Your task to perform on an android device: What is the news today? Image 0: 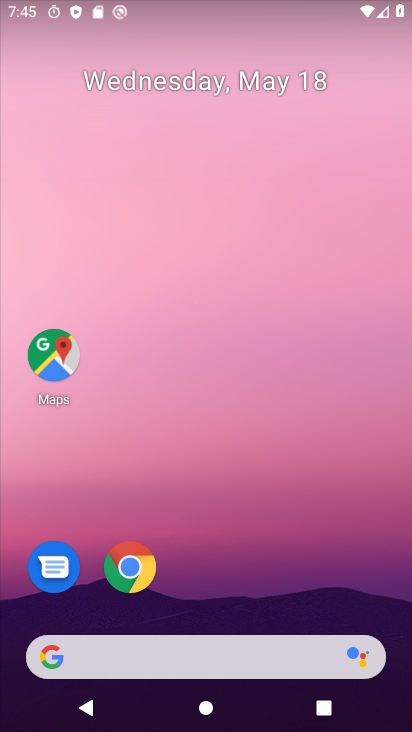
Step 0: click (236, 658)
Your task to perform on an android device: What is the news today? Image 1: 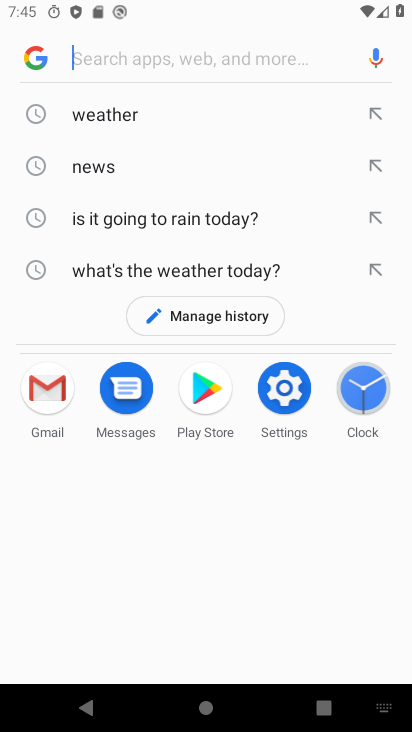
Step 1: click (97, 169)
Your task to perform on an android device: What is the news today? Image 2: 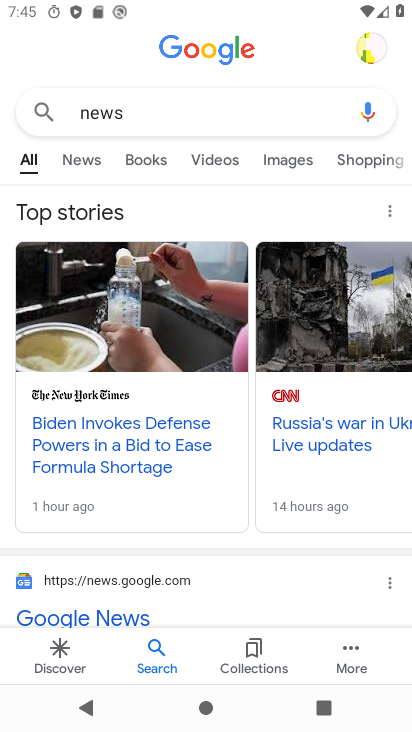
Step 2: click (72, 154)
Your task to perform on an android device: What is the news today? Image 3: 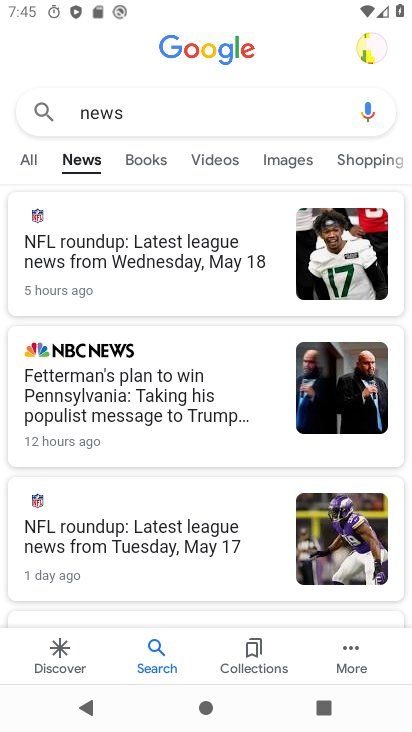
Step 3: task complete